Your task to perform on an android device: see sites visited before in the chrome app Image 0: 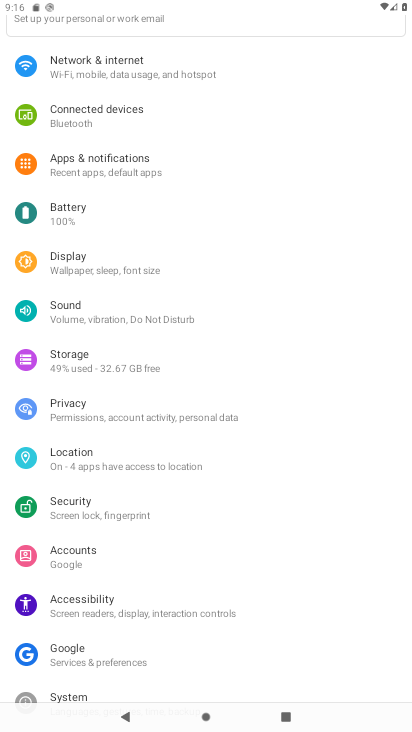
Step 0: press home button
Your task to perform on an android device: see sites visited before in the chrome app Image 1: 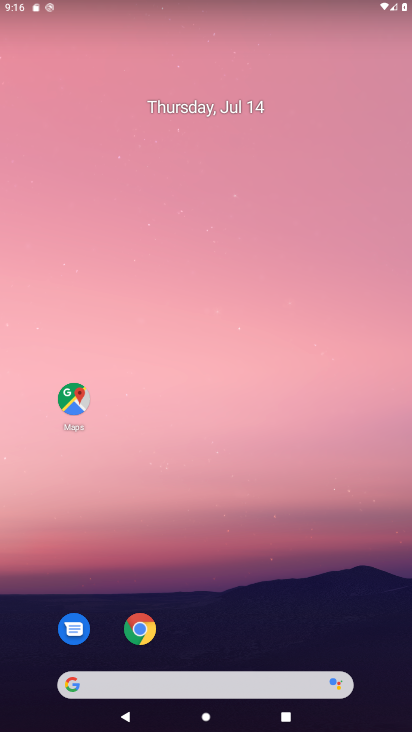
Step 1: drag from (288, 580) to (304, 8)
Your task to perform on an android device: see sites visited before in the chrome app Image 2: 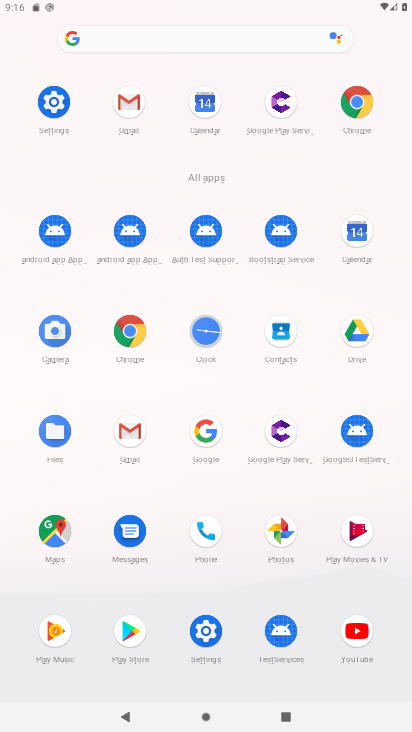
Step 2: click (140, 330)
Your task to perform on an android device: see sites visited before in the chrome app Image 3: 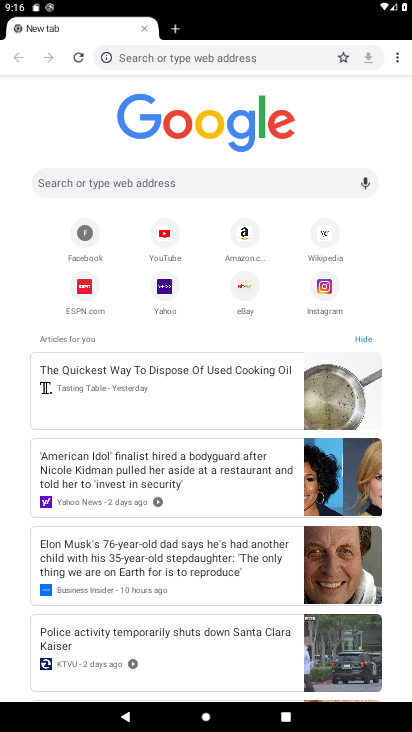
Step 3: drag from (396, 62) to (310, 166)
Your task to perform on an android device: see sites visited before in the chrome app Image 4: 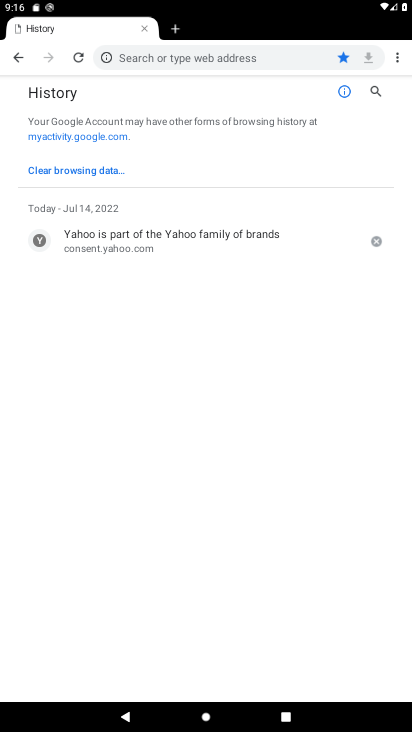
Step 4: click (172, 235)
Your task to perform on an android device: see sites visited before in the chrome app Image 5: 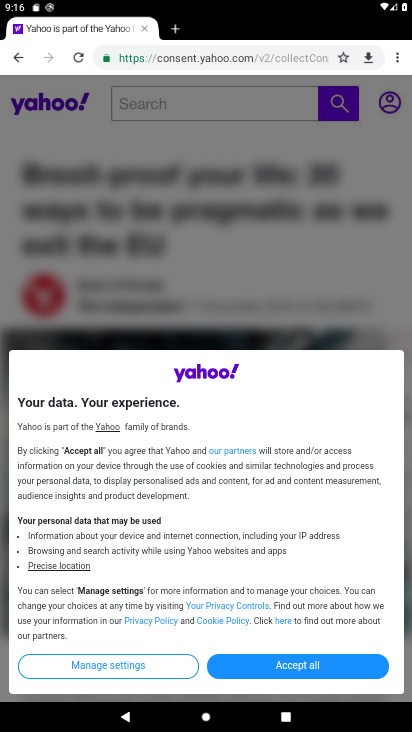
Step 5: click (263, 668)
Your task to perform on an android device: see sites visited before in the chrome app Image 6: 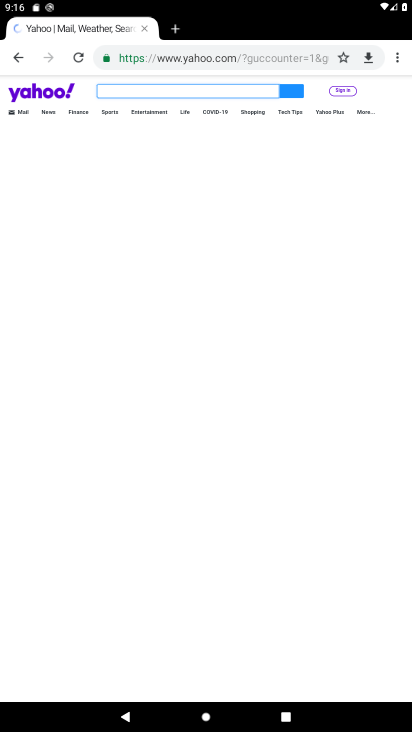
Step 6: task complete